Your task to perform on an android device: toggle location history Image 0: 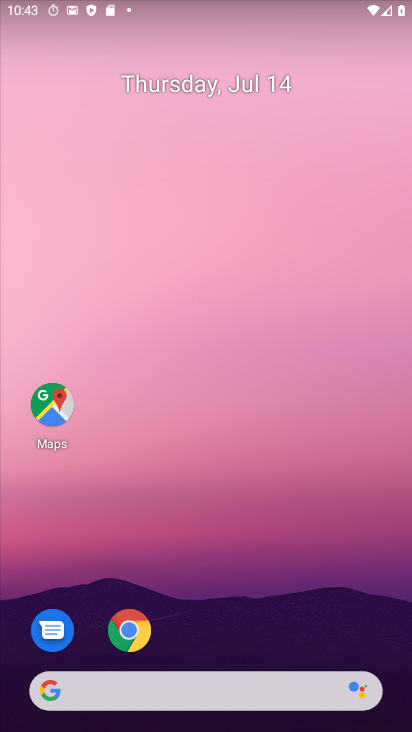
Step 0: drag from (273, 622) to (260, 96)
Your task to perform on an android device: toggle location history Image 1: 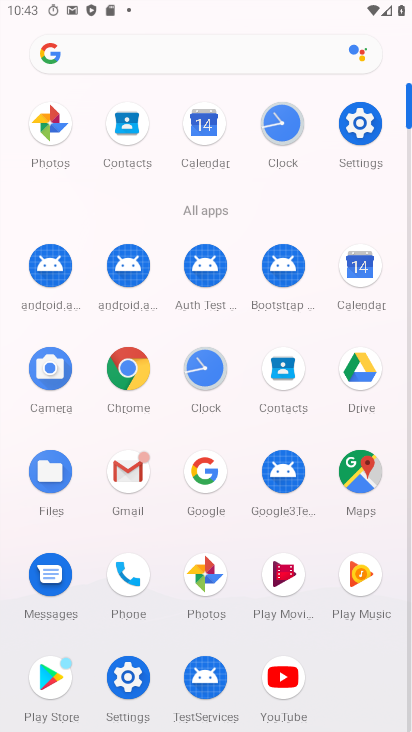
Step 1: click (134, 688)
Your task to perform on an android device: toggle location history Image 2: 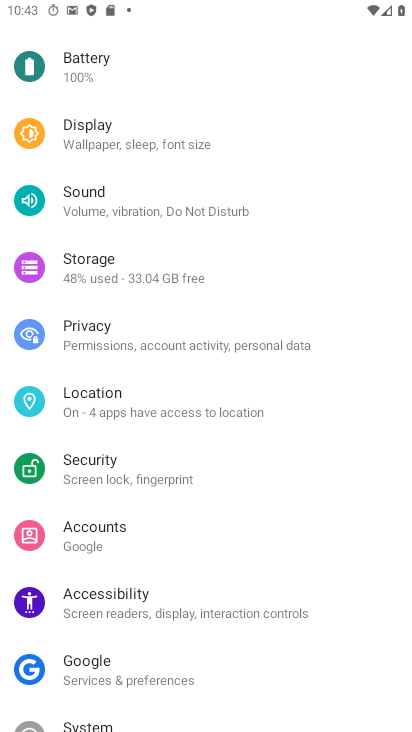
Step 2: click (172, 400)
Your task to perform on an android device: toggle location history Image 3: 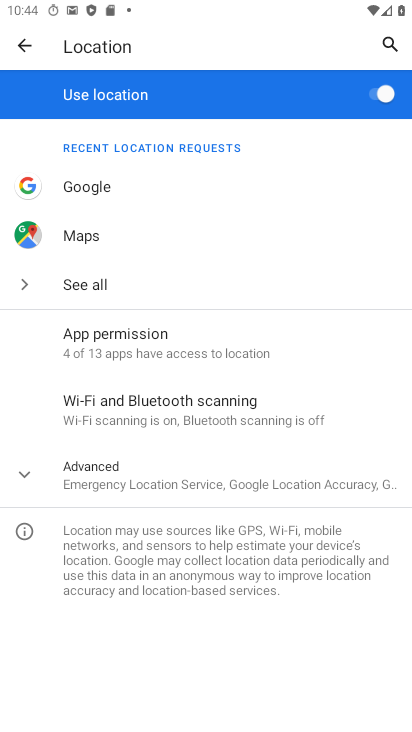
Step 3: click (157, 482)
Your task to perform on an android device: toggle location history Image 4: 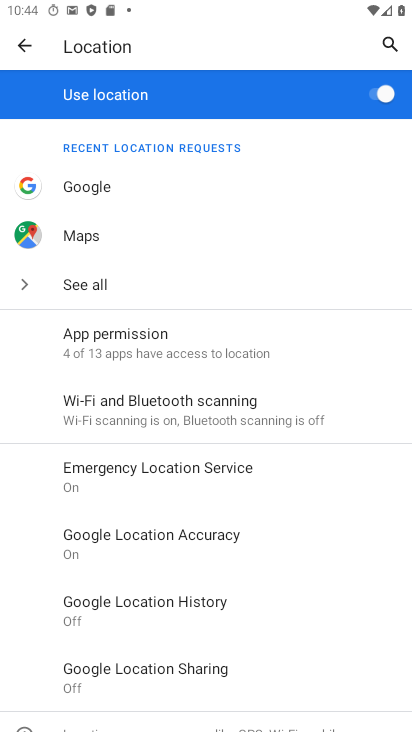
Step 4: click (140, 607)
Your task to perform on an android device: toggle location history Image 5: 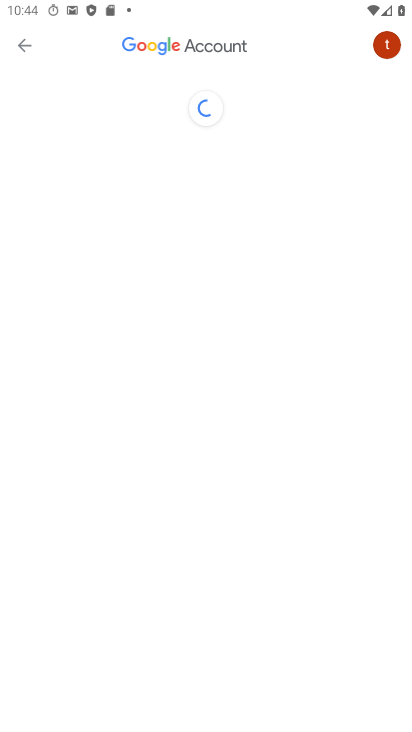
Step 5: click (323, 628)
Your task to perform on an android device: toggle location history Image 6: 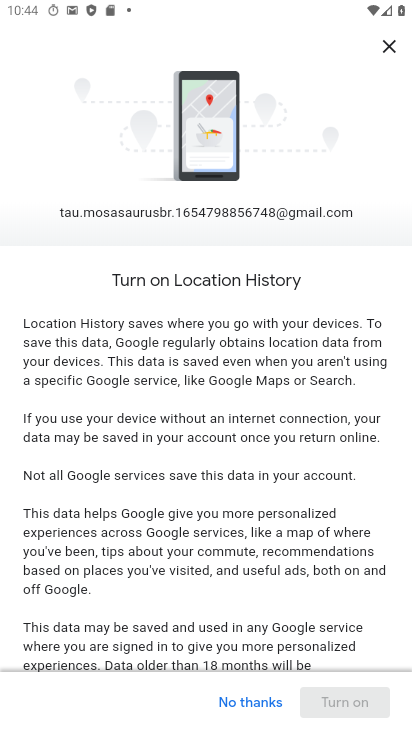
Step 6: drag from (315, 628) to (293, 211)
Your task to perform on an android device: toggle location history Image 7: 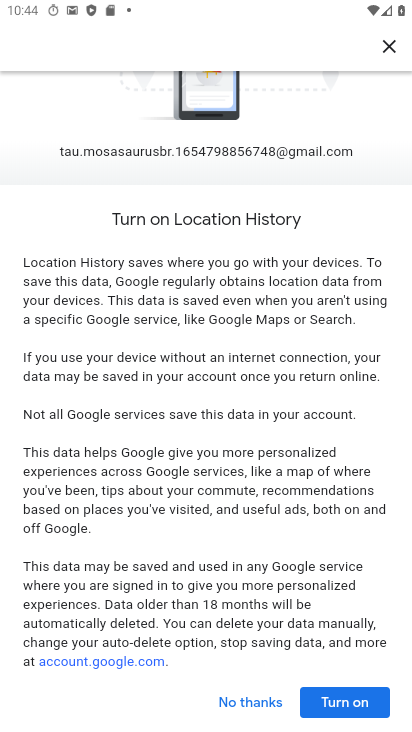
Step 7: drag from (257, 581) to (266, 379)
Your task to perform on an android device: toggle location history Image 8: 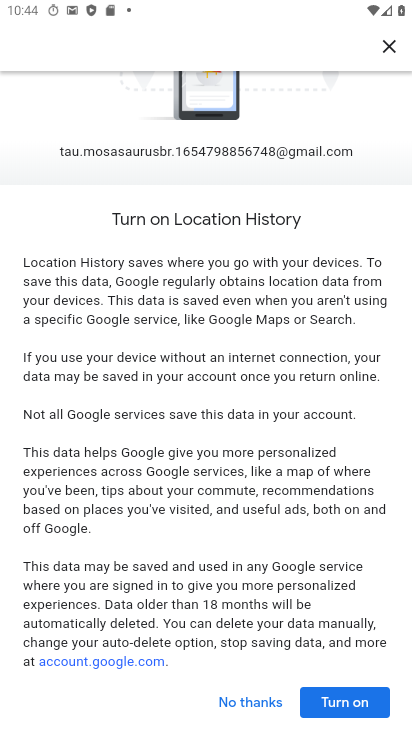
Step 8: click (330, 699)
Your task to perform on an android device: toggle location history Image 9: 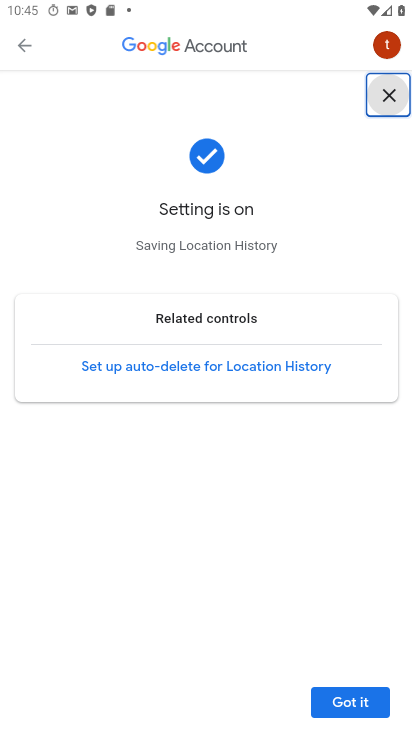
Step 9: click (343, 699)
Your task to perform on an android device: toggle location history Image 10: 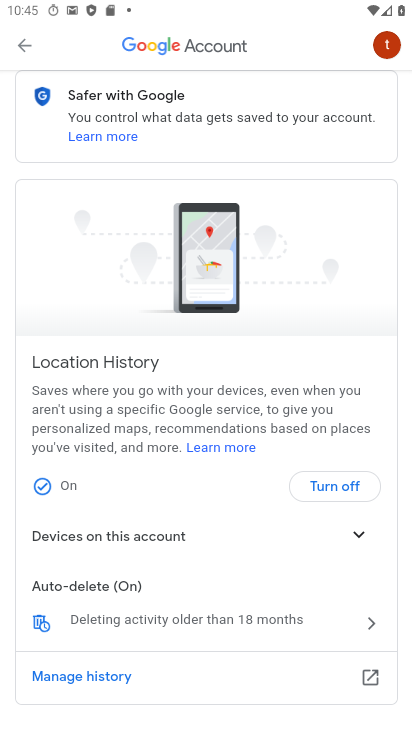
Step 10: task complete